Your task to perform on an android device: turn on airplane mode Image 0: 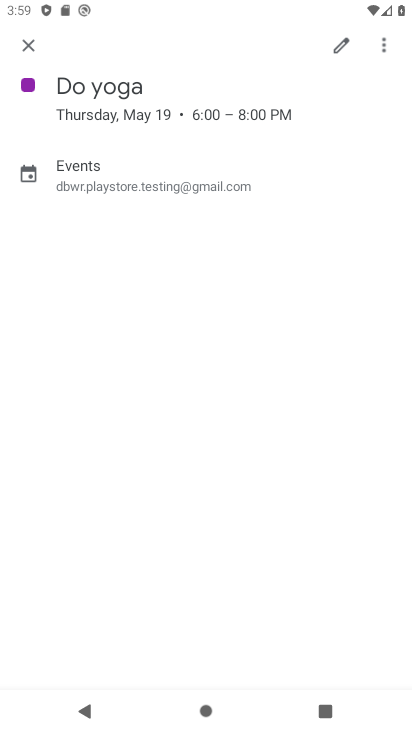
Step 0: press home button
Your task to perform on an android device: turn on airplane mode Image 1: 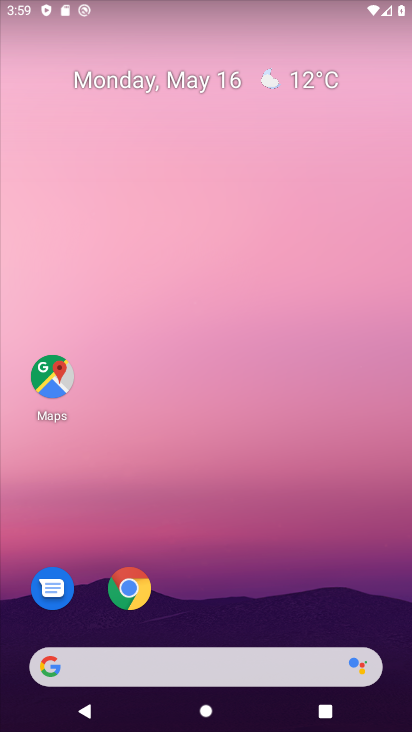
Step 1: drag from (286, 560) to (254, 296)
Your task to perform on an android device: turn on airplane mode Image 2: 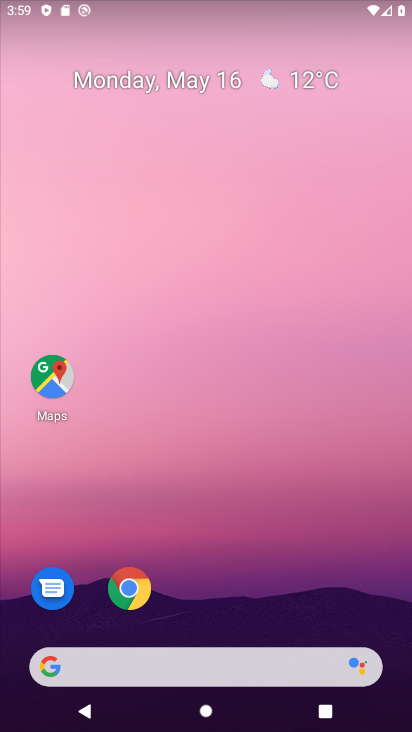
Step 2: drag from (361, 565) to (319, 300)
Your task to perform on an android device: turn on airplane mode Image 3: 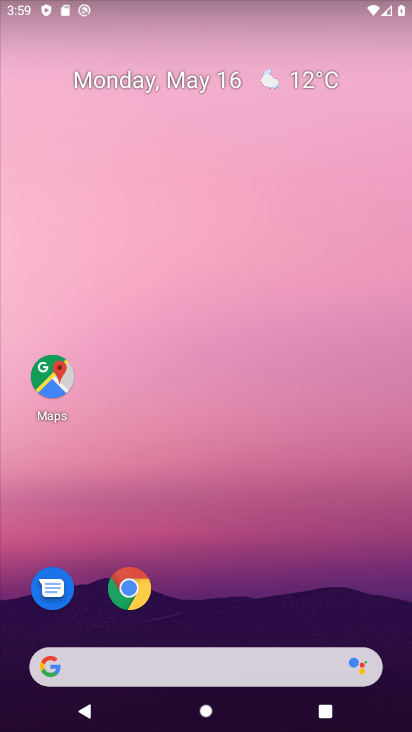
Step 3: drag from (345, 498) to (311, 115)
Your task to perform on an android device: turn on airplane mode Image 4: 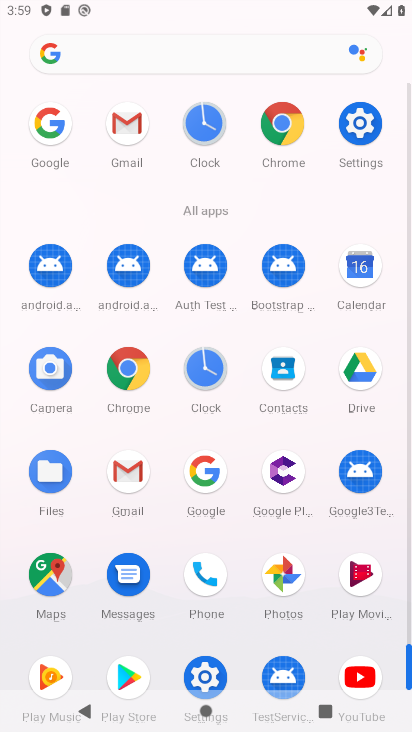
Step 4: click (359, 119)
Your task to perform on an android device: turn on airplane mode Image 5: 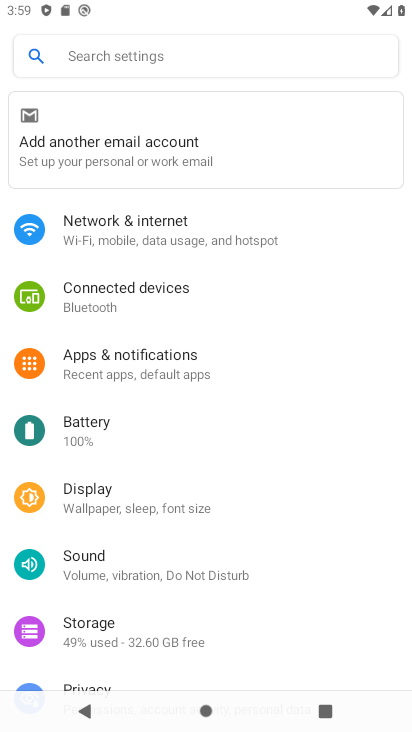
Step 5: click (223, 212)
Your task to perform on an android device: turn on airplane mode Image 6: 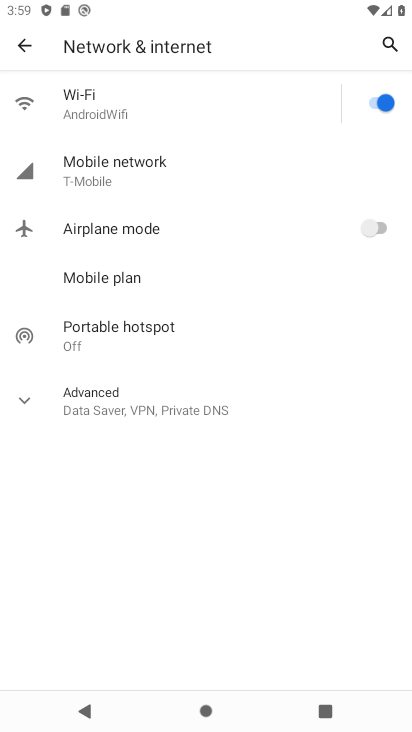
Step 6: click (359, 234)
Your task to perform on an android device: turn on airplane mode Image 7: 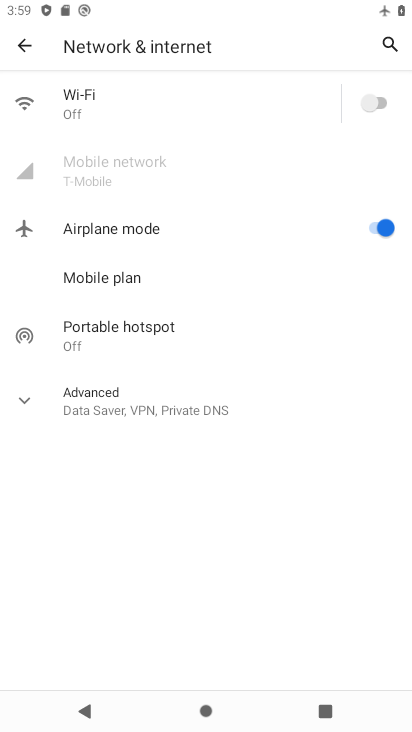
Step 7: task complete